Your task to perform on an android device: toggle priority inbox in the gmail app Image 0: 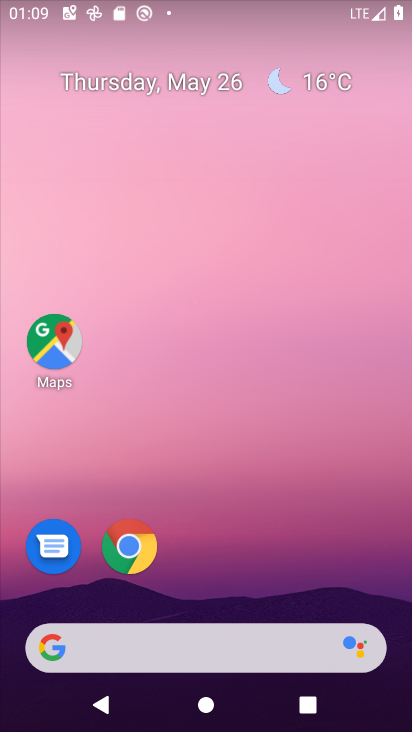
Step 0: drag from (205, 457) to (252, 235)
Your task to perform on an android device: toggle priority inbox in the gmail app Image 1: 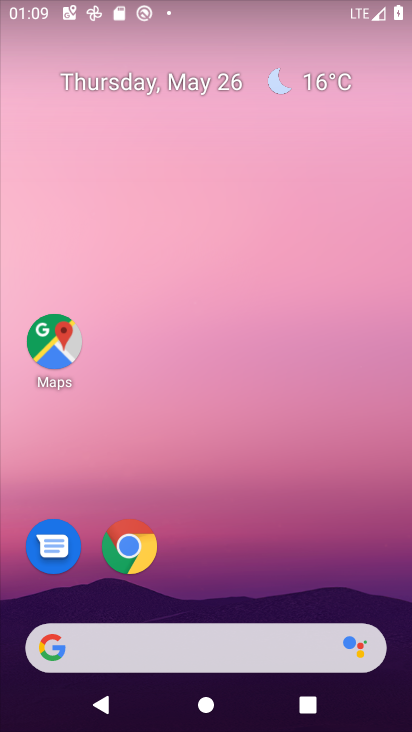
Step 1: drag from (129, 570) to (229, 224)
Your task to perform on an android device: toggle priority inbox in the gmail app Image 2: 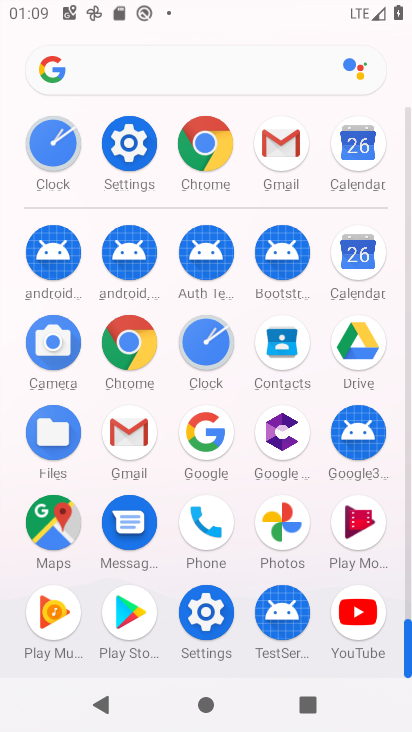
Step 2: click (289, 152)
Your task to perform on an android device: toggle priority inbox in the gmail app Image 3: 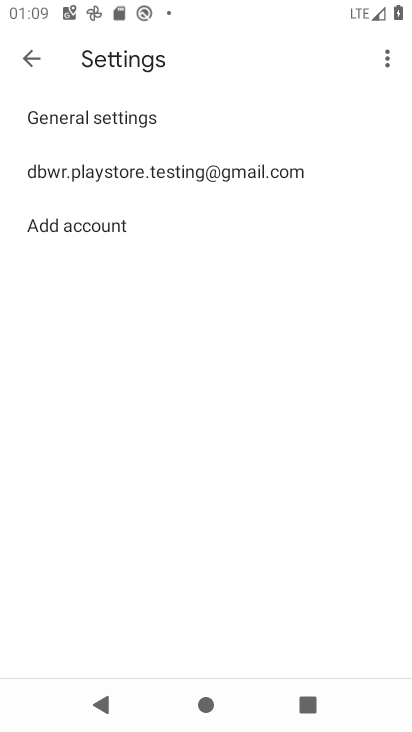
Step 3: click (161, 175)
Your task to perform on an android device: toggle priority inbox in the gmail app Image 4: 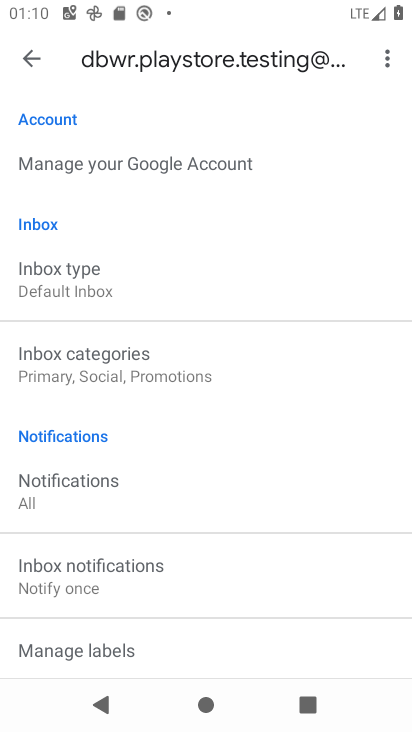
Step 4: click (90, 293)
Your task to perform on an android device: toggle priority inbox in the gmail app Image 5: 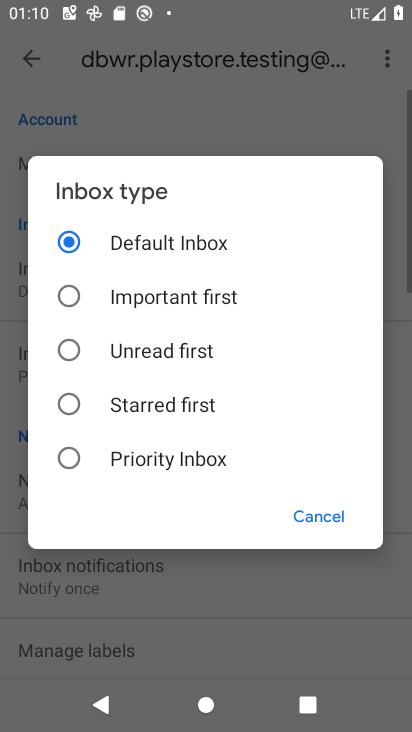
Step 5: click (145, 454)
Your task to perform on an android device: toggle priority inbox in the gmail app Image 6: 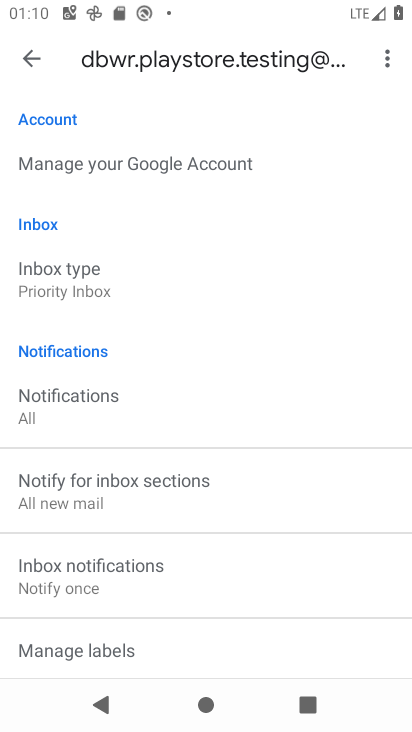
Step 6: task complete